Your task to perform on an android device: When is my next meeting? Image 0: 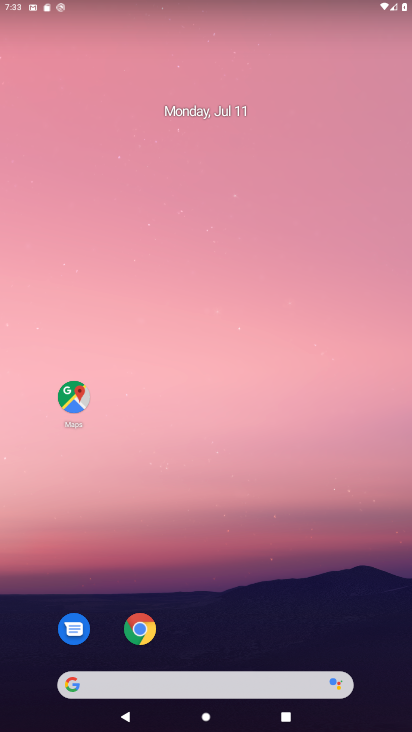
Step 0: drag from (371, 628) to (372, 306)
Your task to perform on an android device: When is my next meeting? Image 1: 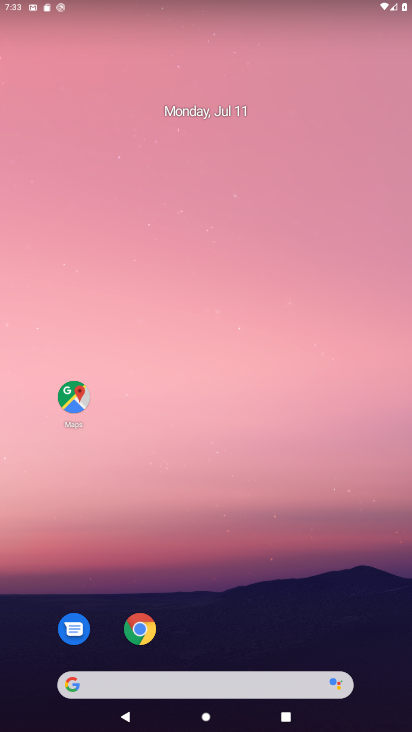
Step 1: drag from (316, 602) to (368, 107)
Your task to perform on an android device: When is my next meeting? Image 2: 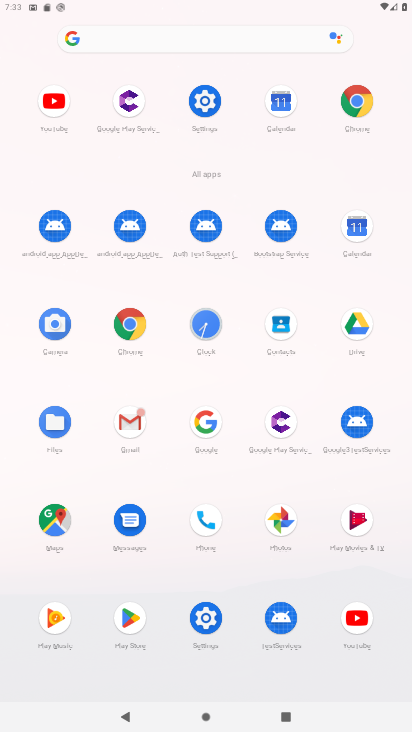
Step 2: click (358, 239)
Your task to perform on an android device: When is my next meeting? Image 3: 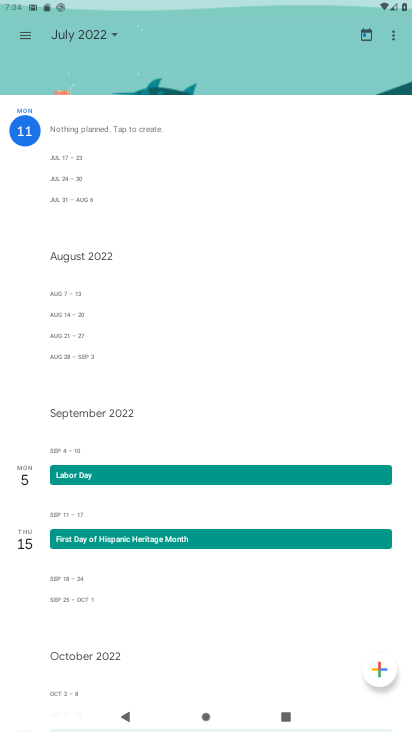
Step 3: task complete